Your task to perform on an android device: Open calendar and show me the fourth week of next month Image 0: 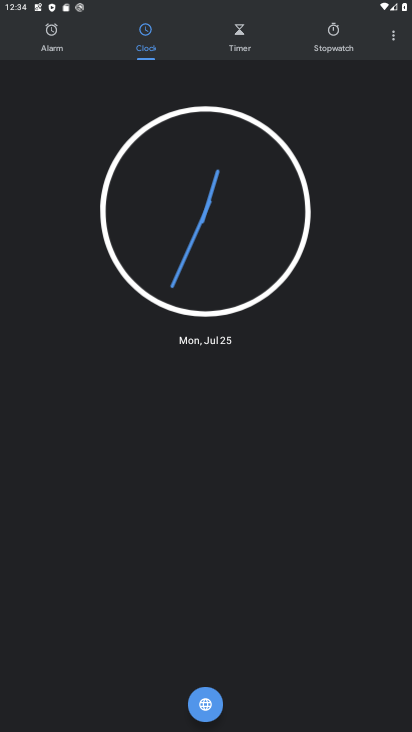
Step 0: press home button
Your task to perform on an android device: Open calendar and show me the fourth week of next month Image 1: 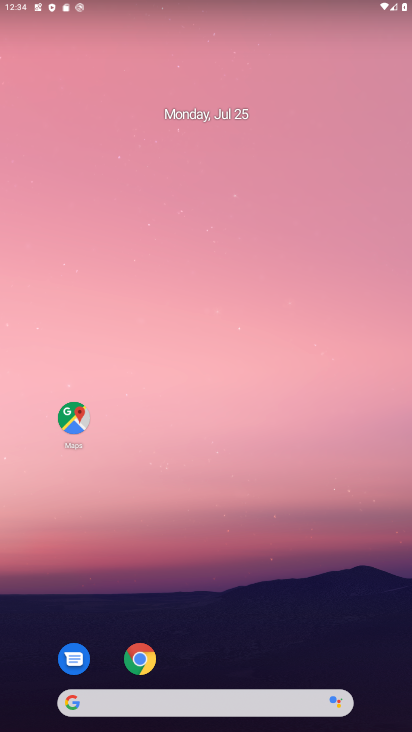
Step 1: drag from (258, 512) to (333, 127)
Your task to perform on an android device: Open calendar and show me the fourth week of next month Image 2: 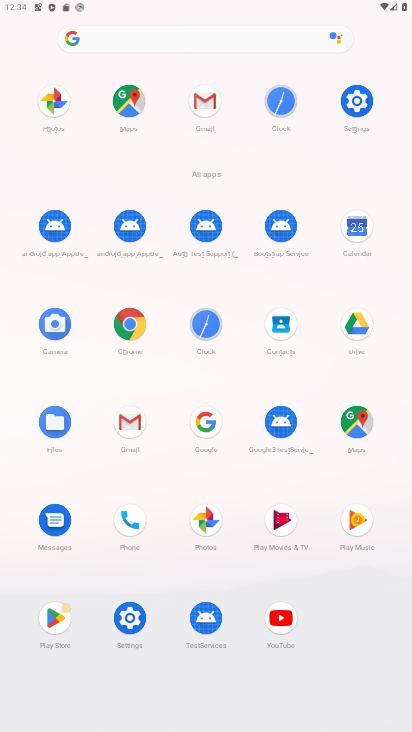
Step 2: click (359, 238)
Your task to perform on an android device: Open calendar and show me the fourth week of next month Image 3: 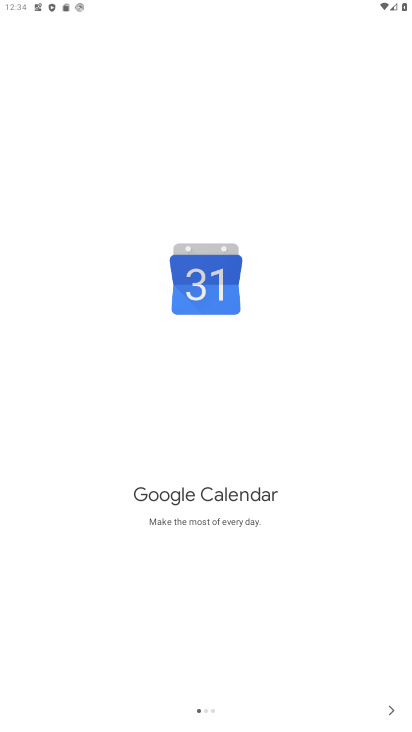
Step 3: click (393, 714)
Your task to perform on an android device: Open calendar and show me the fourth week of next month Image 4: 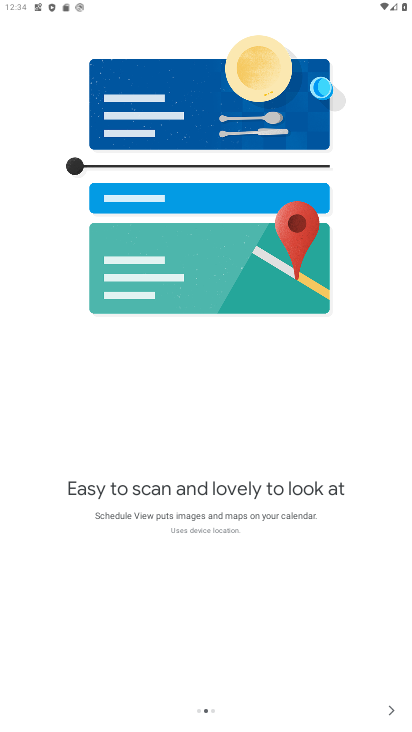
Step 4: click (393, 714)
Your task to perform on an android device: Open calendar and show me the fourth week of next month Image 5: 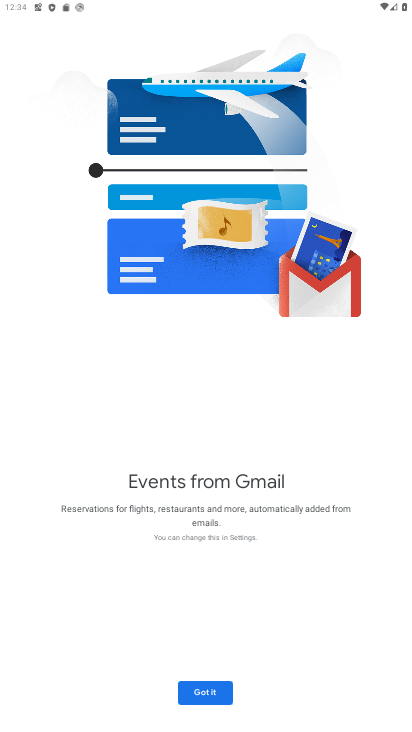
Step 5: click (220, 692)
Your task to perform on an android device: Open calendar and show me the fourth week of next month Image 6: 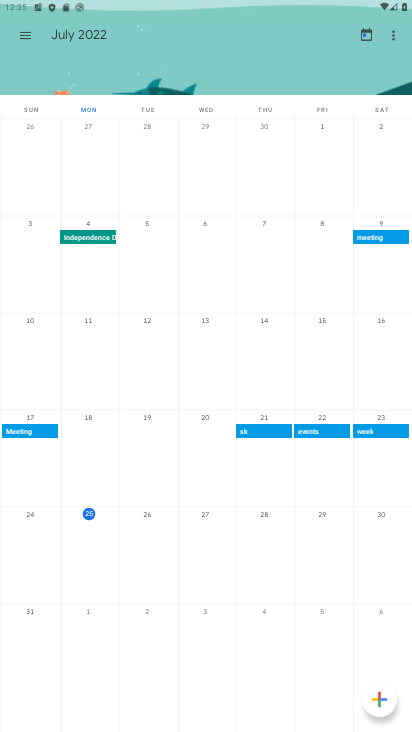
Step 6: drag from (330, 329) to (391, 144)
Your task to perform on an android device: Open calendar and show me the fourth week of next month Image 7: 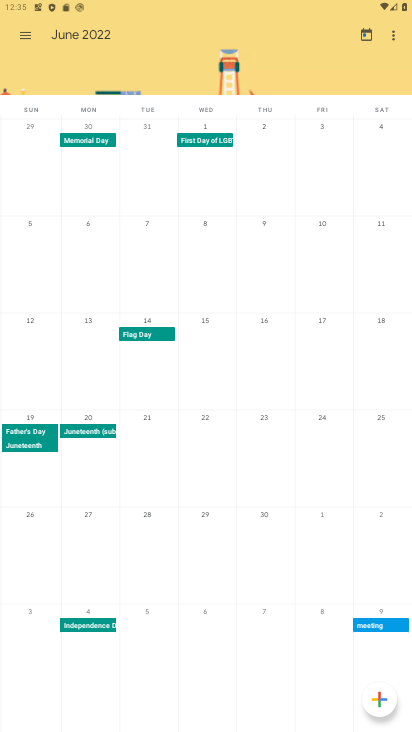
Step 7: click (141, 515)
Your task to perform on an android device: Open calendar and show me the fourth week of next month Image 8: 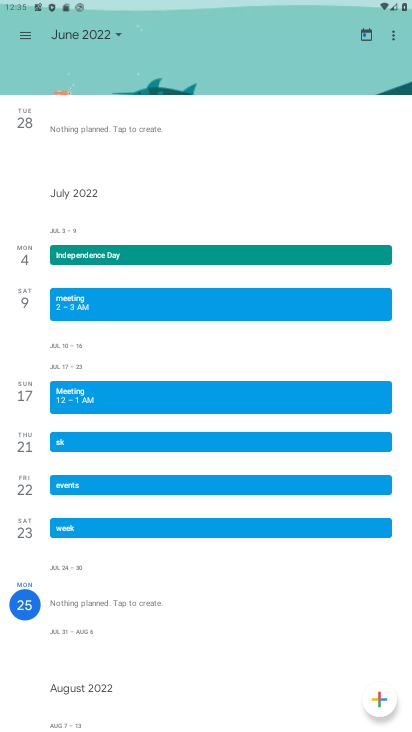
Step 8: task complete